Your task to perform on an android device: empty trash in google photos Image 0: 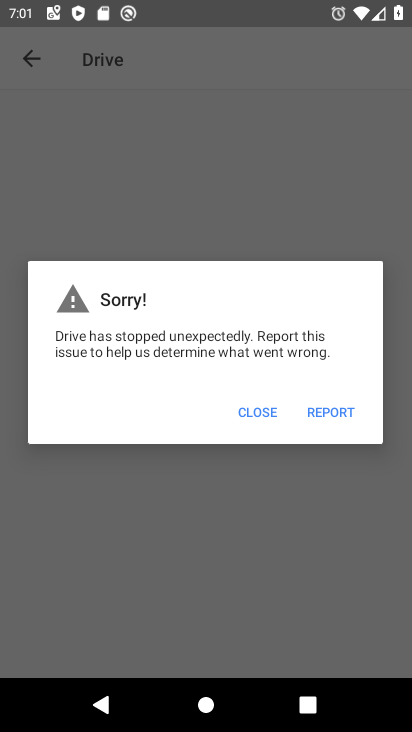
Step 0: press home button
Your task to perform on an android device: empty trash in google photos Image 1: 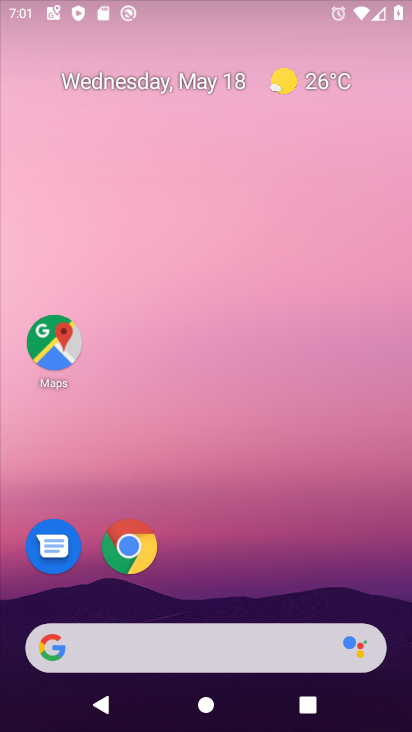
Step 1: drag from (409, 643) to (211, 48)
Your task to perform on an android device: empty trash in google photos Image 2: 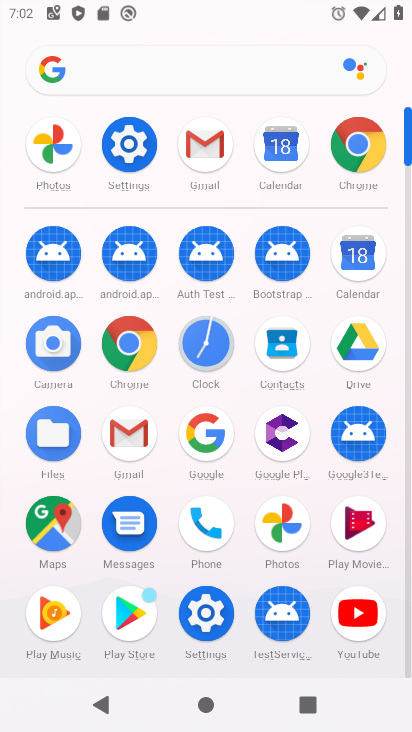
Step 2: click (294, 530)
Your task to perform on an android device: empty trash in google photos Image 3: 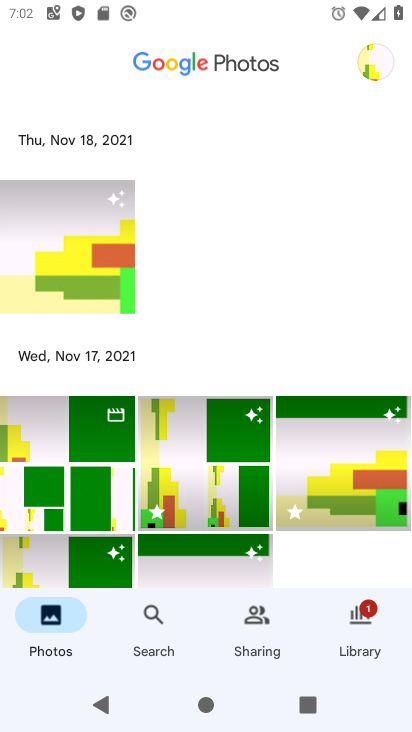
Step 3: click (359, 643)
Your task to perform on an android device: empty trash in google photos Image 4: 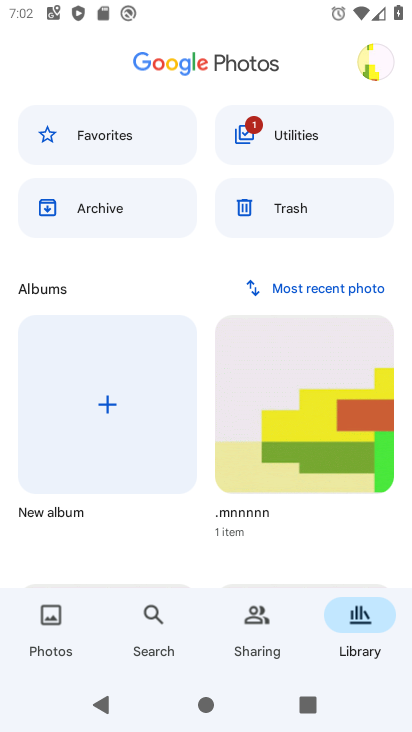
Step 4: click (300, 213)
Your task to perform on an android device: empty trash in google photos Image 5: 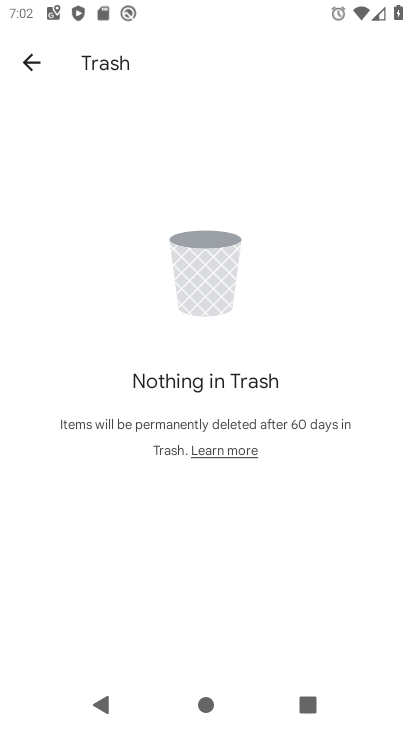
Step 5: task complete